Your task to perform on an android device: Is it going to rain this weekend? Image 0: 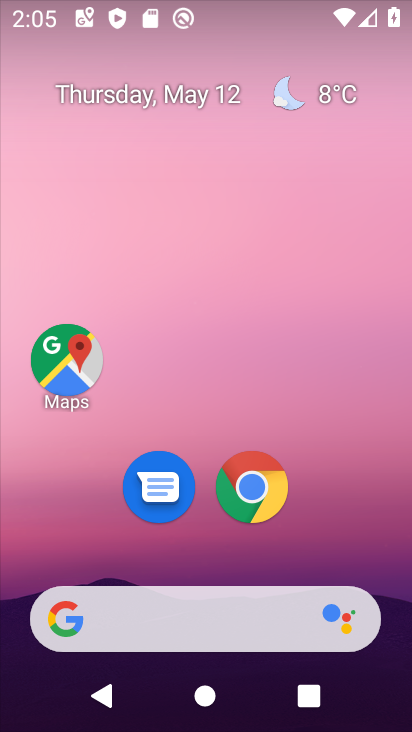
Step 0: click (177, 597)
Your task to perform on an android device: Is it going to rain this weekend? Image 1: 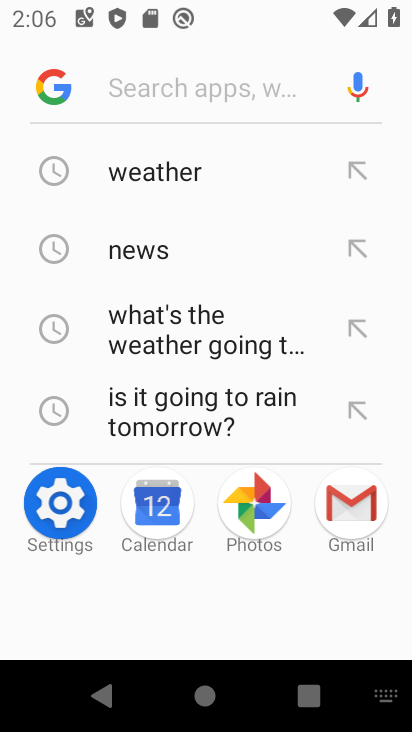
Step 1: type "is it going to rain this weekend"
Your task to perform on an android device: Is it going to rain this weekend? Image 2: 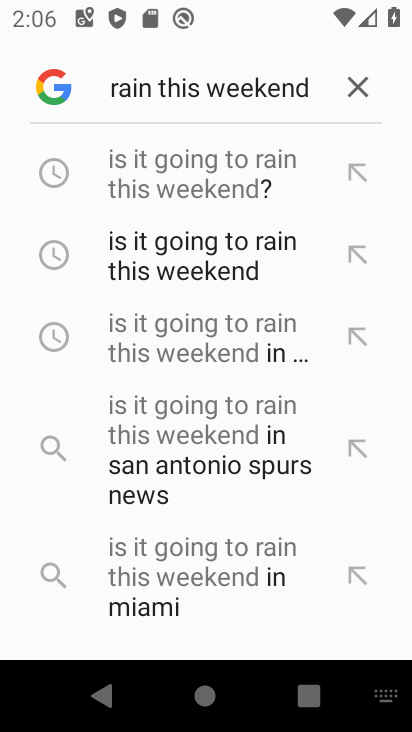
Step 2: click (273, 134)
Your task to perform on an android device: Is it going to rain this weekend? Image 3: 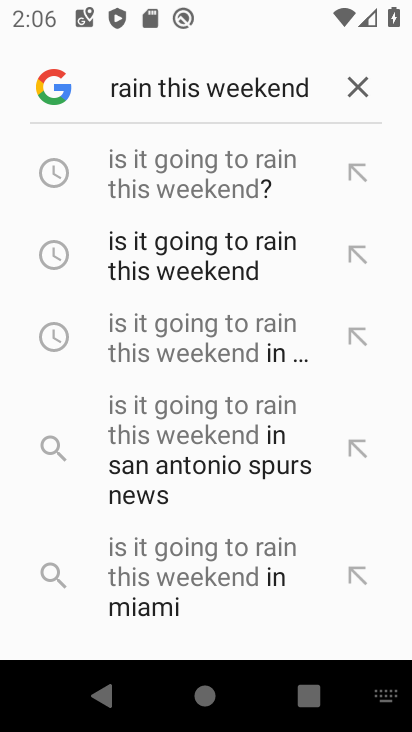
Step 3: click (253, 155)
Your task to perform on an android device: Is it going to rain this weekend? Image 4: 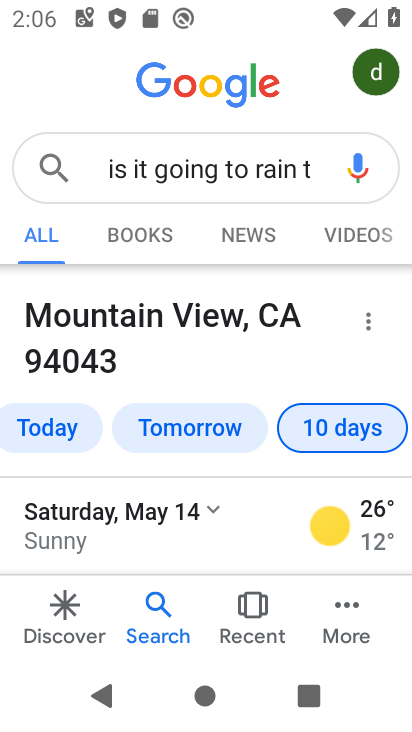
Step 4: task complete